Your task to perform on an android device: Open Chrome and go to the settings page Image 0: 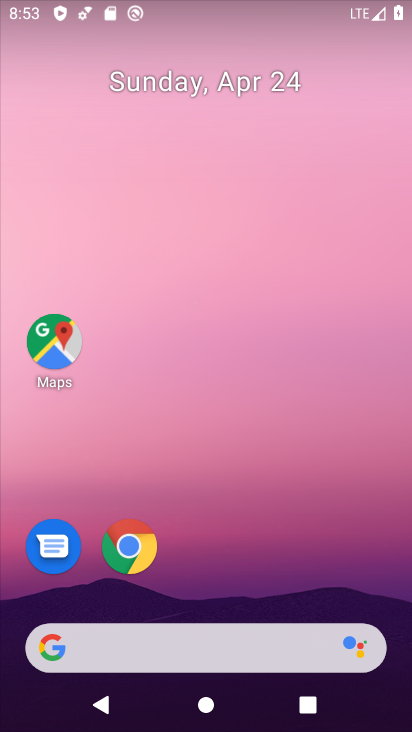
Step 0: click (133, 551)
Your task to perform on an android device: Open Chrome and go to the settings page Image 1: 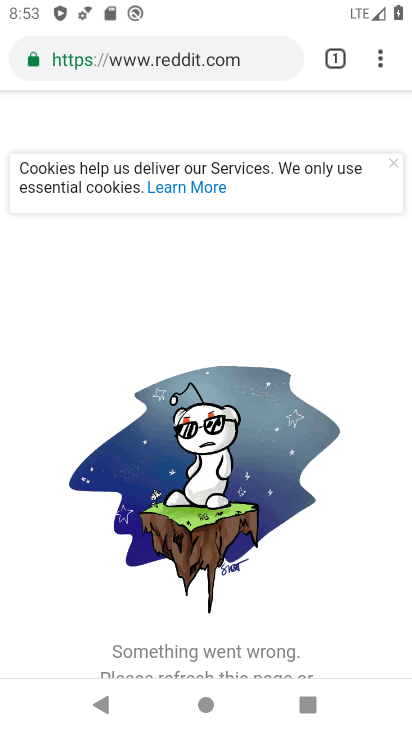
Step 1: click (378, 68)
Your task to perform on an android device: Open Chrome and go to the settings page Image 2: 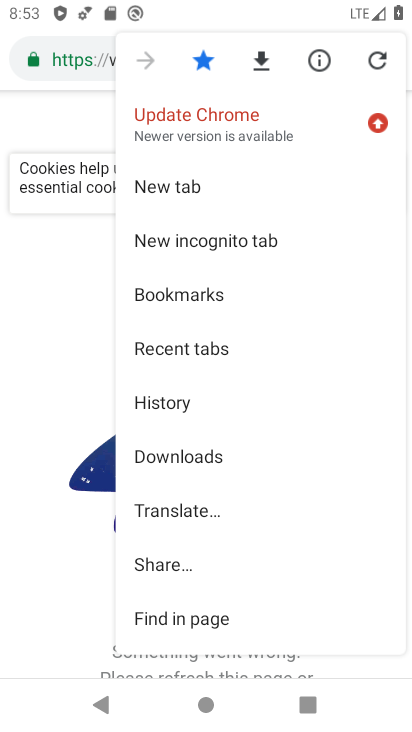
Step 2: drag from (220, 587) to (242, 299)
Your task to perform on an android device: Open Chrome and go to the settings page Image 3: 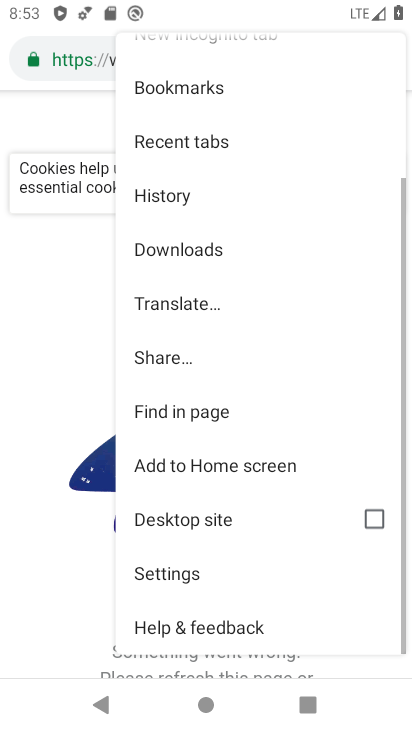
Step 3: click (180, 572)
Your task to perform on an android device: Open Chrome and go to the settings page Image 4: 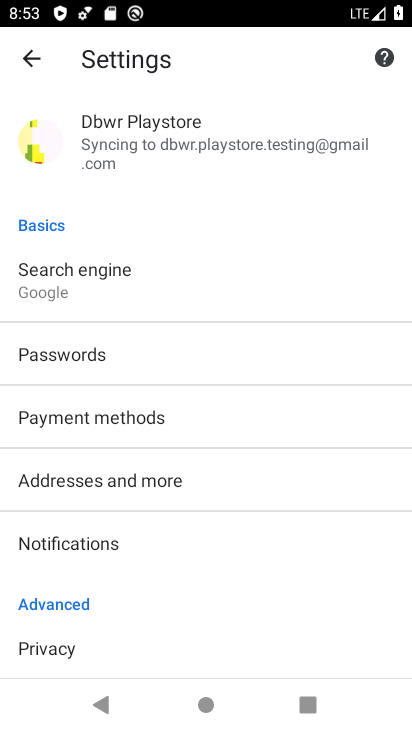
Step 4: task complete